Your task to perform on an android device: all mails in gmail Image 0: 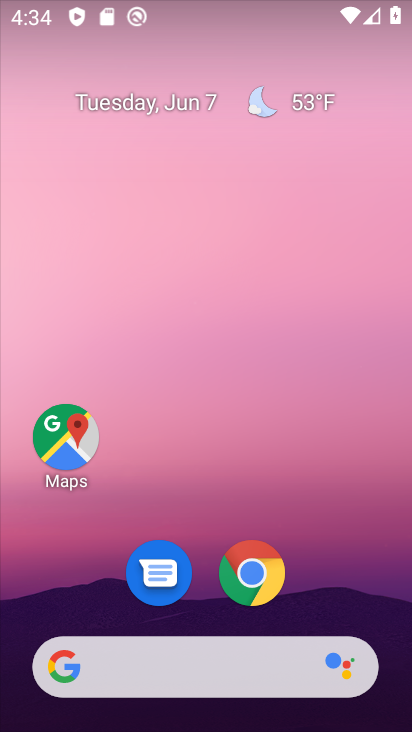
Step 0: drag from (205, 642) to (235, 257)
Your task to perform on an android device: all mails in gmail Image 1: 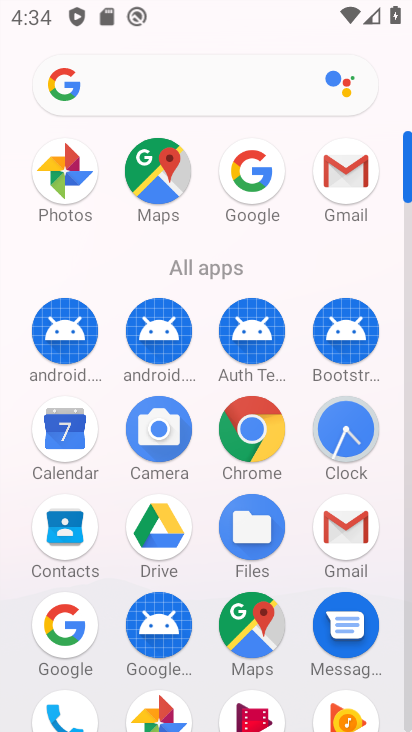
Step 1: click (357, 551)
Your task to perform on an android device: all mails in gmail Image 2: 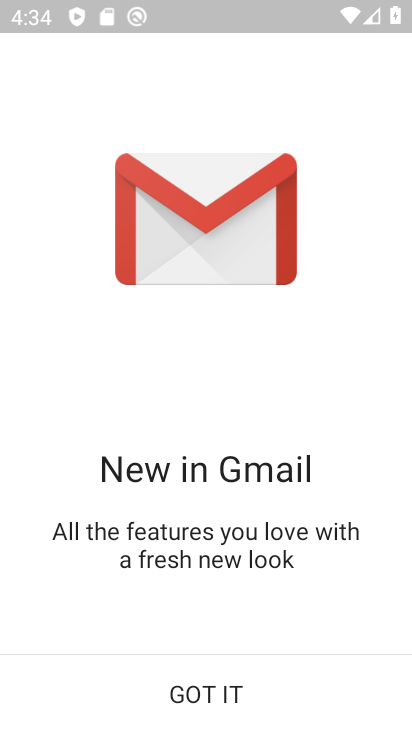
Step 2: click (214, 694)
Your task to perform on an android device: all mails in gmail Image 3: 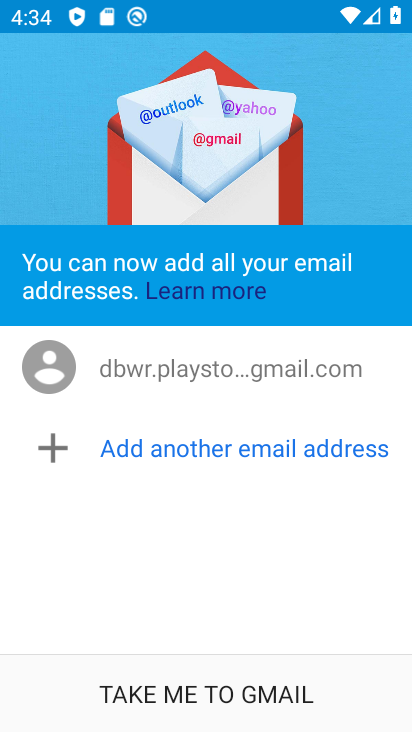
Step 3: click (239, 707)
Your task to perform on an android device: all mails in gmail Image 4: 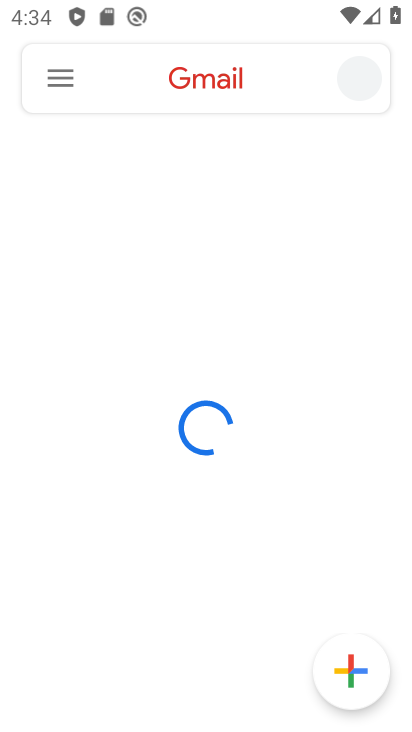
Step 4: click (56, 88)
Your task to perform on an android device: all mails in gmail Image 5: 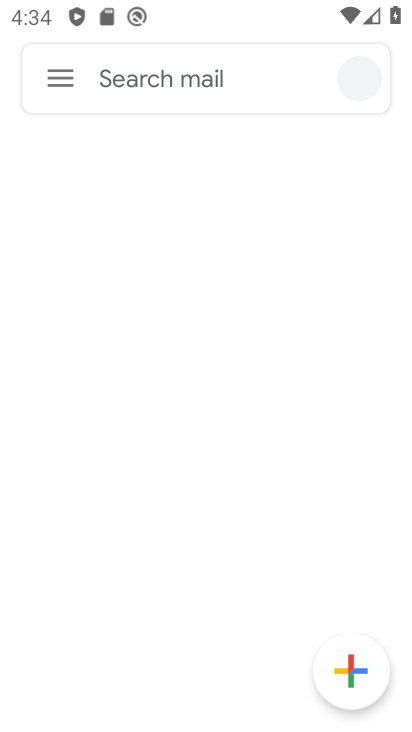
Step 5: drag from (181, 101) to (181, 517)
Your task to perform on an android device: all mails in gmail Image 6: 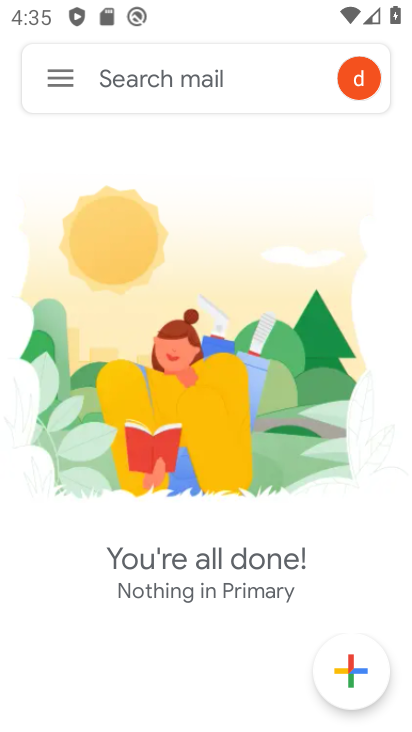
Step 6: click (46, 83)
Your task to perform on an android device: all mails in gmail Image 7: 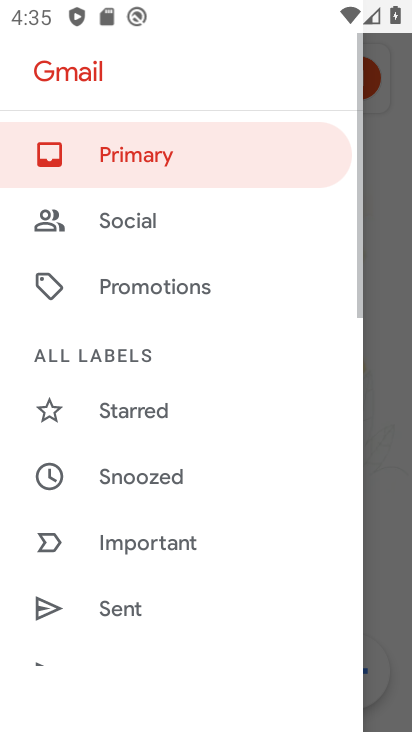
Step 7: drag from (144, 623) to (139, 210)
Your task to perform on an android device: all mails in gmail Image 8: 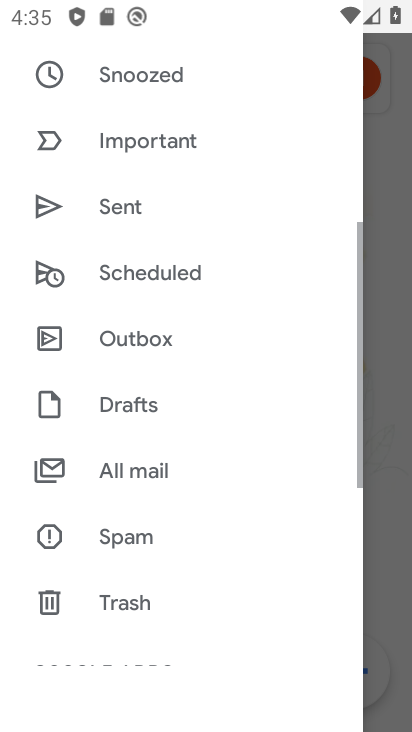
Step 8: click (151, 481)
Your task to perform on an android device: all mails in gmail Image 9: 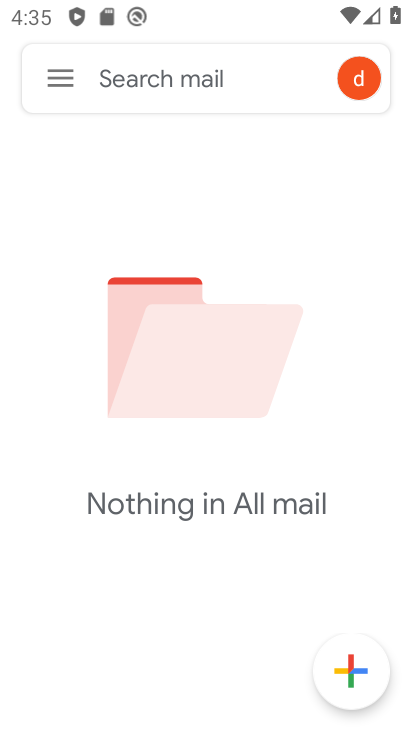
Step 9: task complete